Your task to perform on an android device: stop showing notifications on the lock screen Image 0: 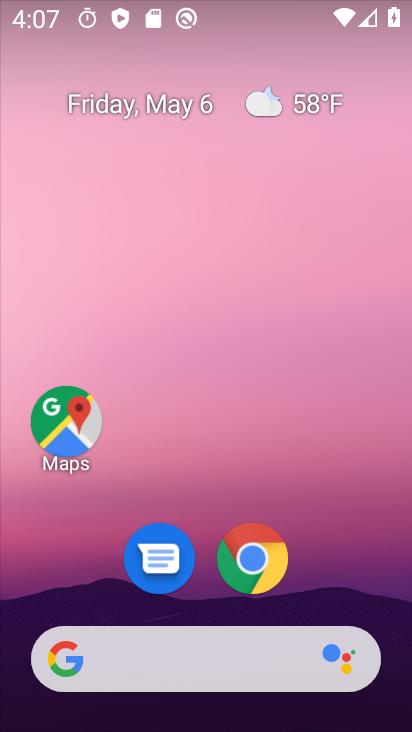
Step 0: drag from (333, 677) to (307, 18)
Your task to perform on an android device: stop showing notifications on the lock screen Image 1: 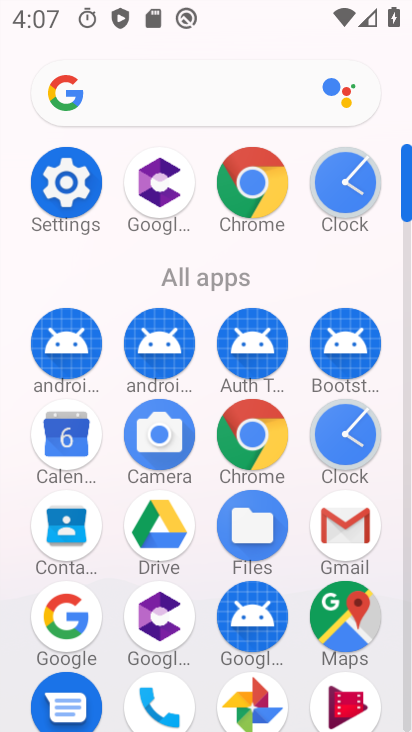
Step 1: drag from (108, 605) to (116, 119)
Your task to perform on an android device: stop showing notifications on the lock screen Image 2: 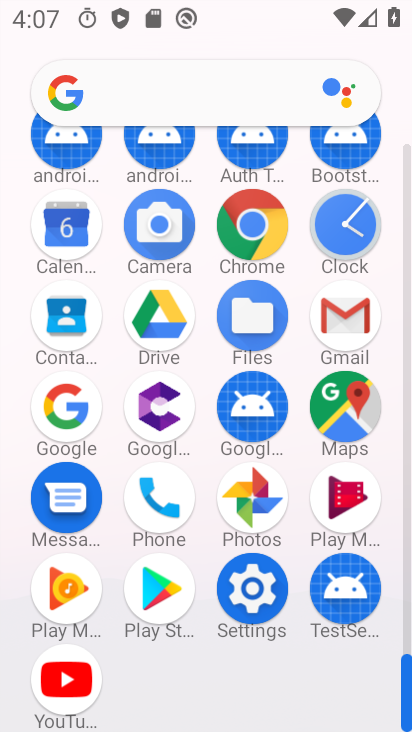
Step 2: click (256, 583)
Your task to perform on an android device: stop showing notifications on the lock screen Image 3: 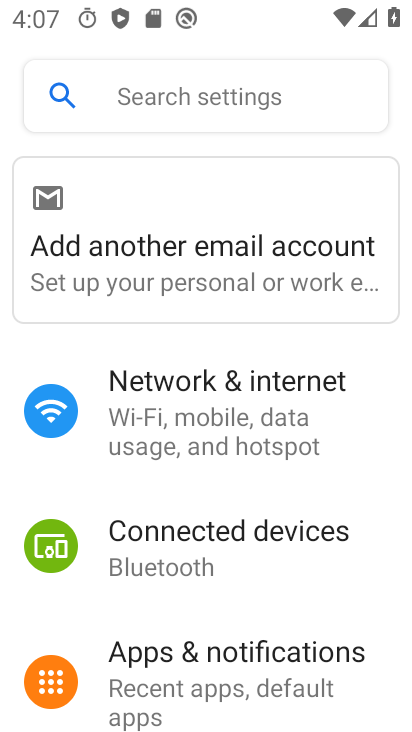
Step 3: click (198, 703)
Your task to perform on an android device: stop showing notifications on the lock screen Image 4: 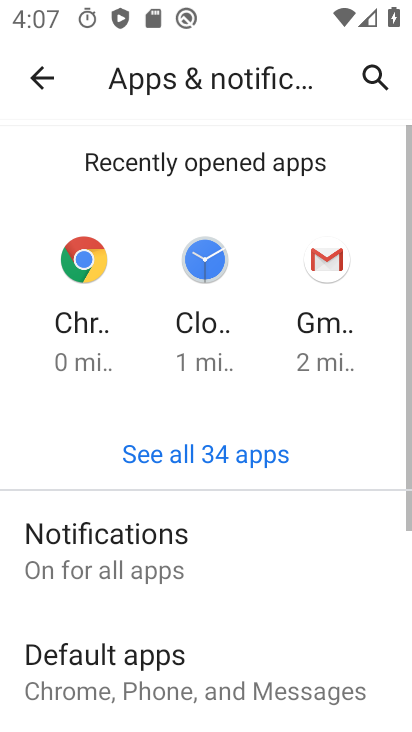
Step 4: drag from (228, 682) to (240, 135)
Your task to perform on an android device: stop showing notifications on the lock screen Image 5: 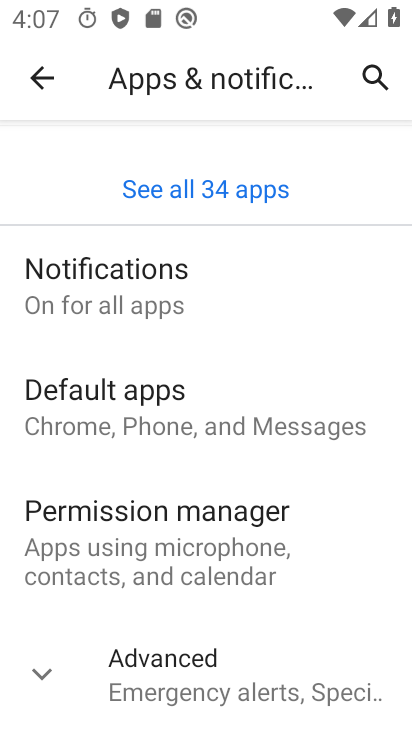
Step 5: click (180, 670)
Your task to perform on an android device: stop showing notifications on the lock screen Image 6: 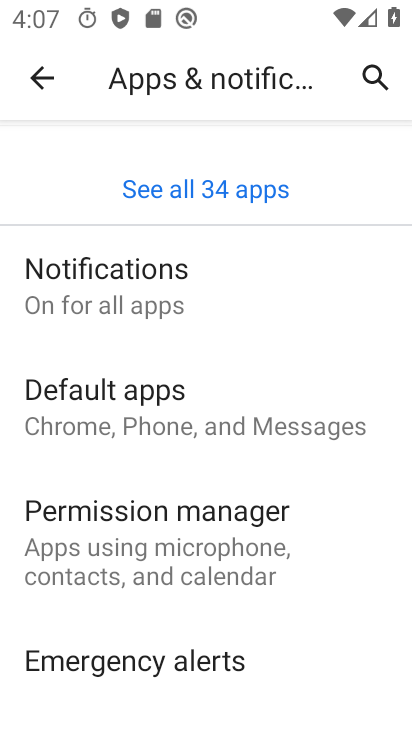
Step 6: click (164, 287)
Your task to perform on an android device: stop showing notifications on the lock screen Image 7: 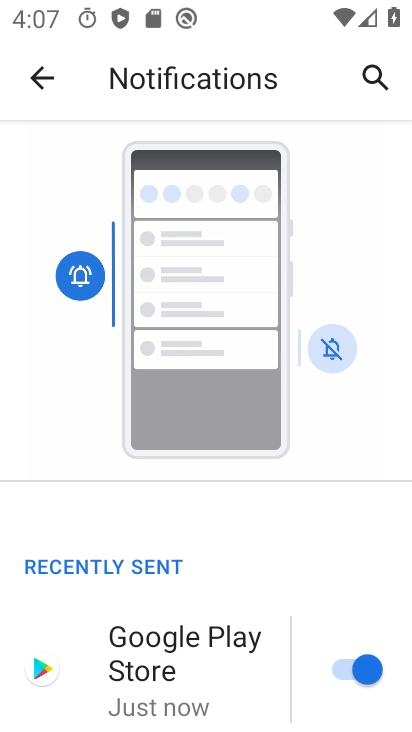
Step 7: drag from (247, 596) to (214, 51)
Your task to perform on an android device: stop showing notifications on the lock screen Image 8: 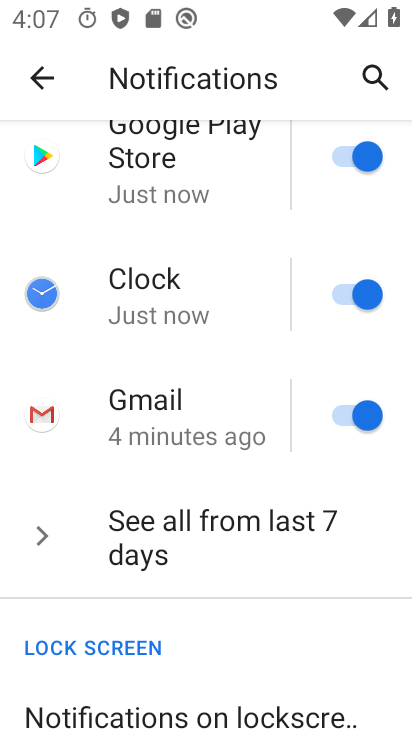
Step 8: drag from (235, 621) to (203, 226)
Your task to perform on an android device: stop showing notifications on the lock screen Image 9: 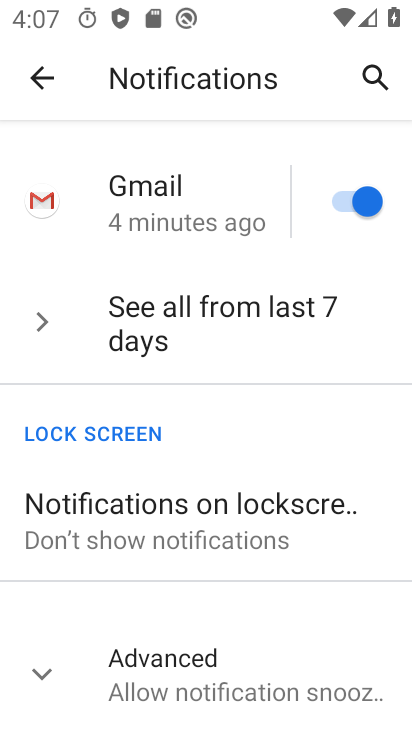
Step 9: click (219, 494)
Your task to perform on an android device: stop showing notifications on the lock screen Image 10: 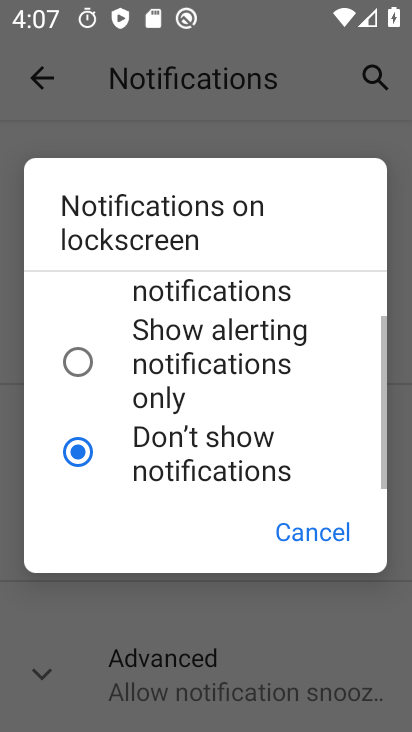
Step 10: task complete